Your task to perform on an android device: Open calendar and show me the first week of next month Image 0: 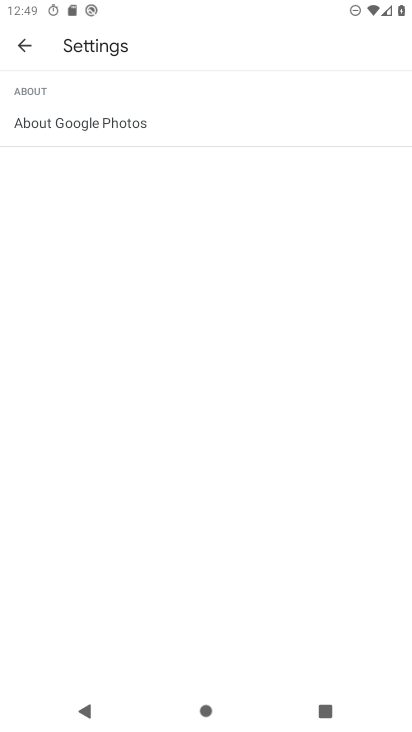
Step 0: press home button
Your task to perform on an android device: Open calendar and show me the first week of next month Image 1: 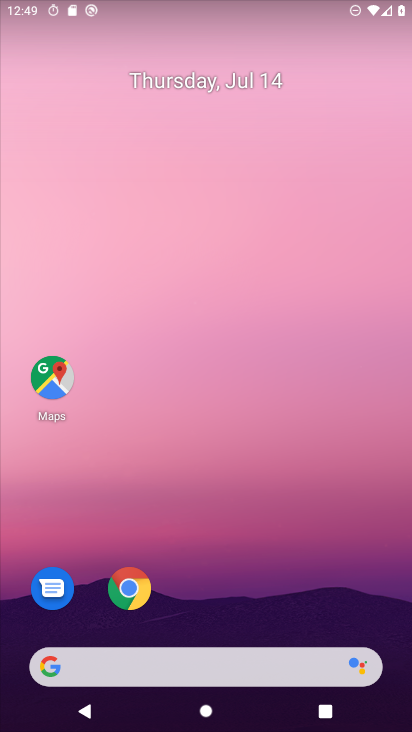
Step 1: drag from (154, 669) to (286, 106)
Your task to perform on an android device: Open calendar and show me the first week of next month Image 2: 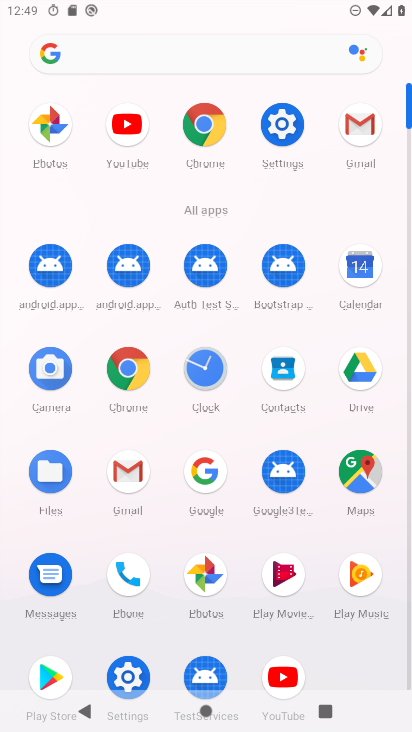
Step 2: click (359, 269)
Your task to perform on an android device: Open calendar and show me the first week of next month Image 3: 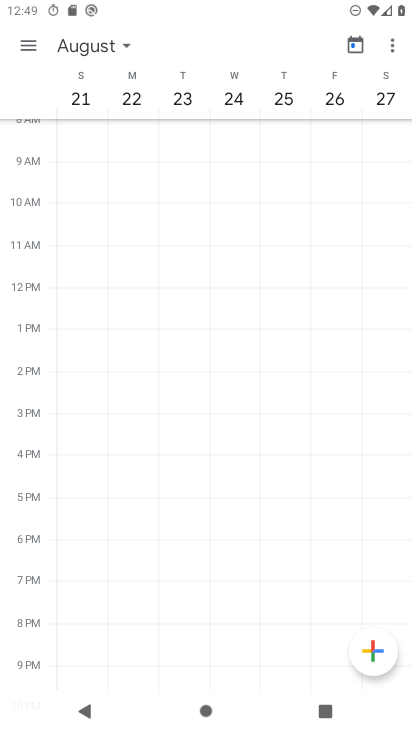
Step 3: click (77, 49)
Your task to perform on an android device: Open calendar and show me the first week of next month Image 4: 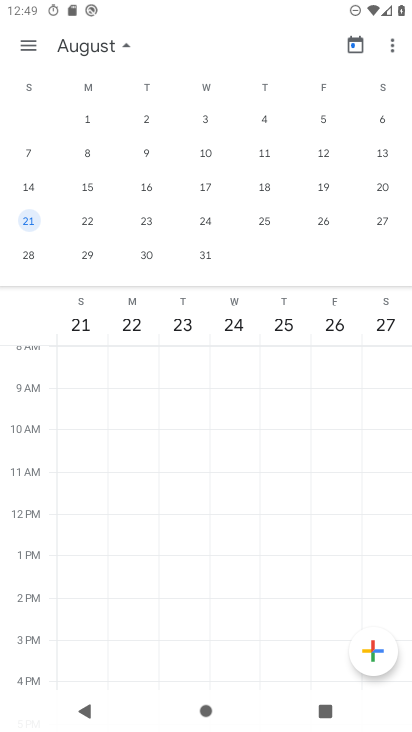
Step 4: click (89, 124)
Your task to perform on an android device: Open calendar and show me the first week of next month Image 5: 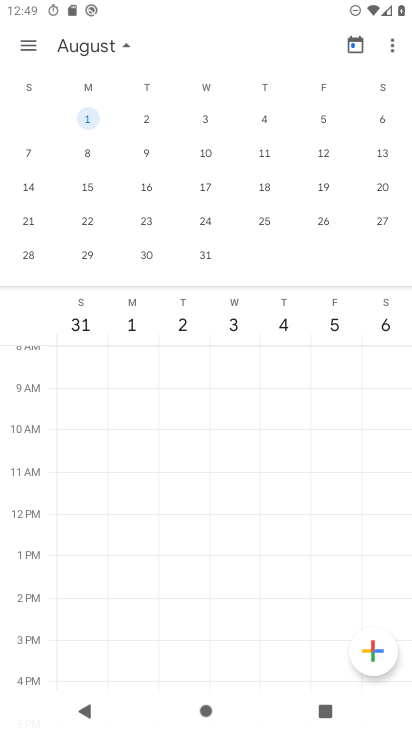
Step 5: click (30, 43)
Your task to perform on an android device: Open calendar and show me the first week of next month Image 6: 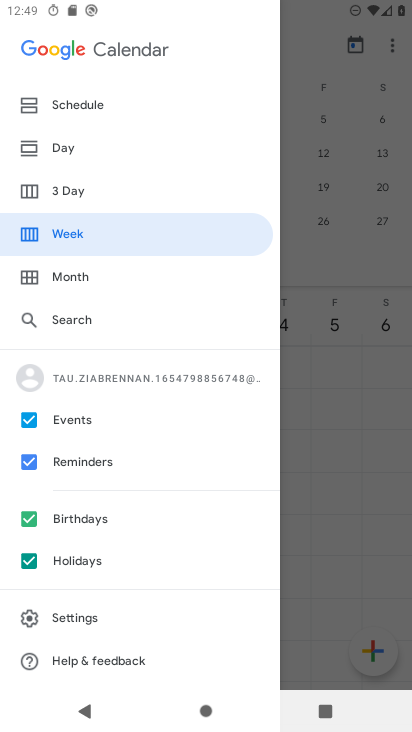
Step 6: click (67, 233)
Your task to perform on an android device: Open calendar and show me the first week of next month Image 7: 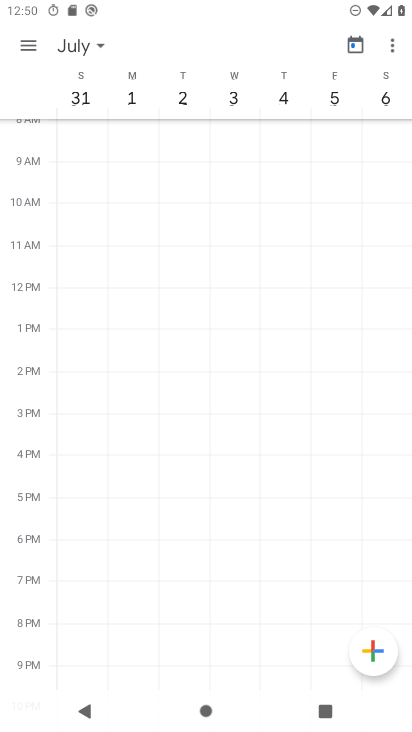
Step 7: task complete